Your task to perform on an android device: Search for Italian restaurants on Maps Image 0: 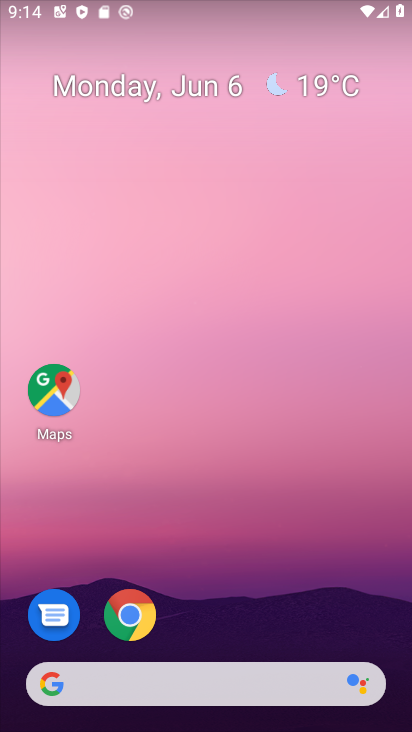
Step 0: click (68, 407)
Your task to perform on an android device: Search for Italian restaurants on Maps Image 1: 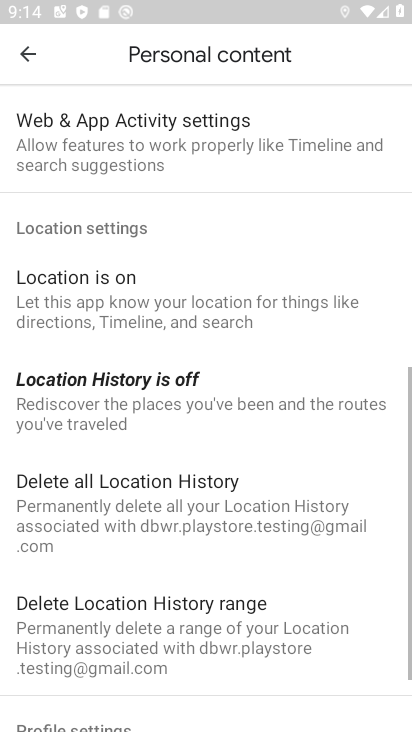
Step 1: press back button
Your task to perform on an android device: Search for Italian restaurants on Maps Image 2: 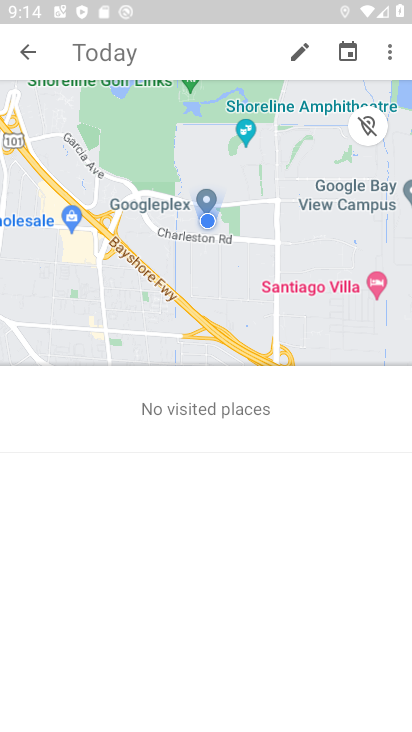
Step 2: click (21, 46)
Your task to perform on an android device: Search for Italian restaurants on Maps Image 3: 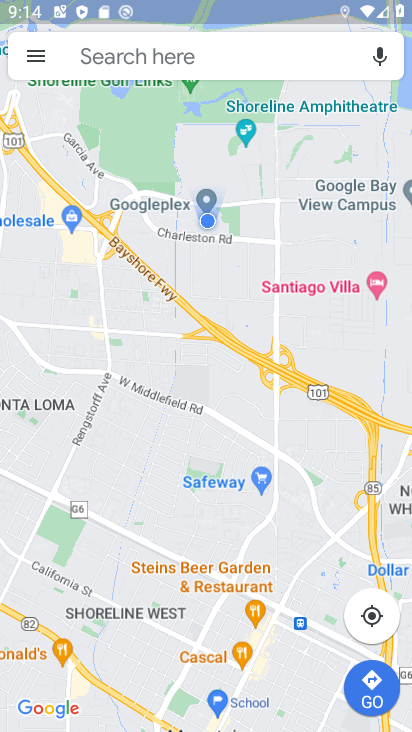
Step 3: click (108, 47)
Your task to perform on an android device: Search for Italian restaurants on Maps Image 4: 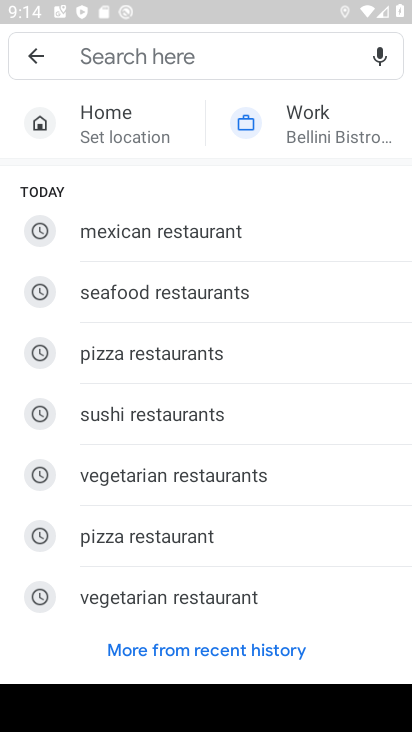
Step 4: click (126, 640)
Your task to perform on an android device: Search for Italian restaurants on Maps Image 5: 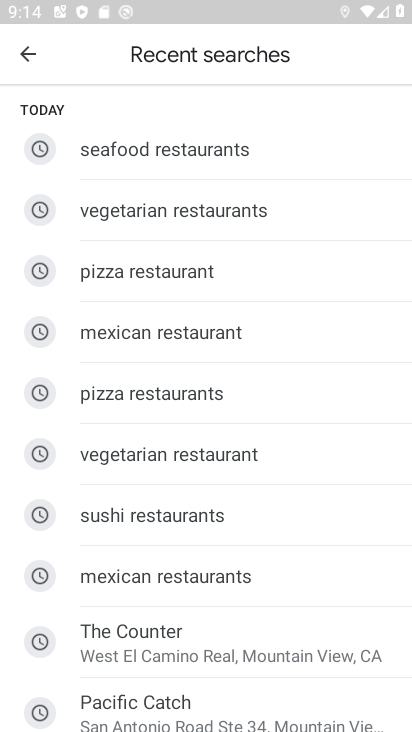
Step 5: click (33, 46)
Your task to perform on an android device: Search for Italian restaurants on Maps Image 6: 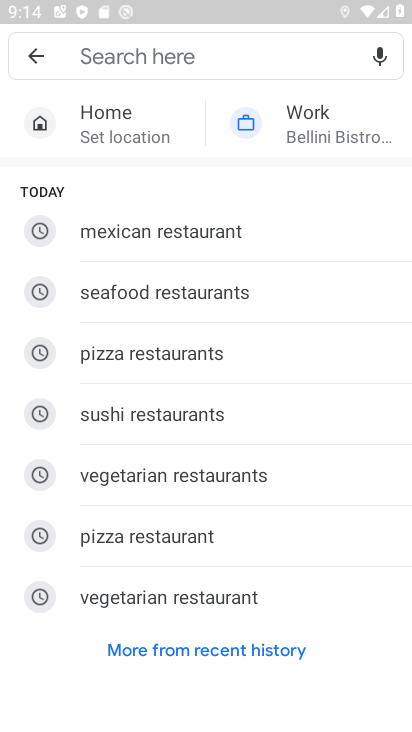
Step 6: click (179, 59)
Your task to perform on an android device: Search for Italian restaurants on Maps Image 7: 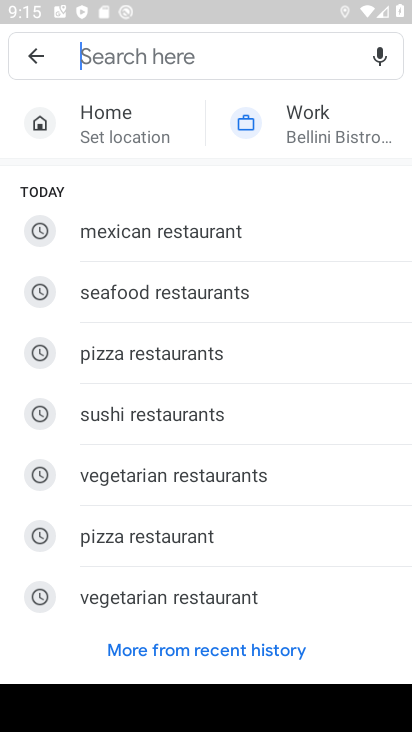
Step 7: type "italian restu"
Your task to perform on an android device: Search for Italian restaurants on Maps Image 8: 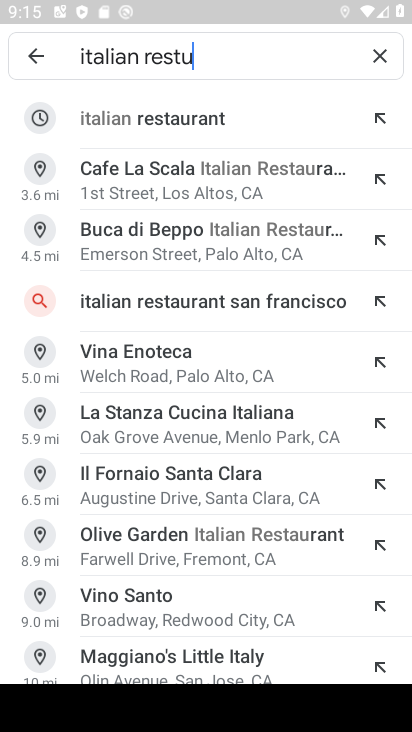
Step 8: click (156, 127)
Your task to perform on an android device: Search for Italian restaurants on Maps Image 9: 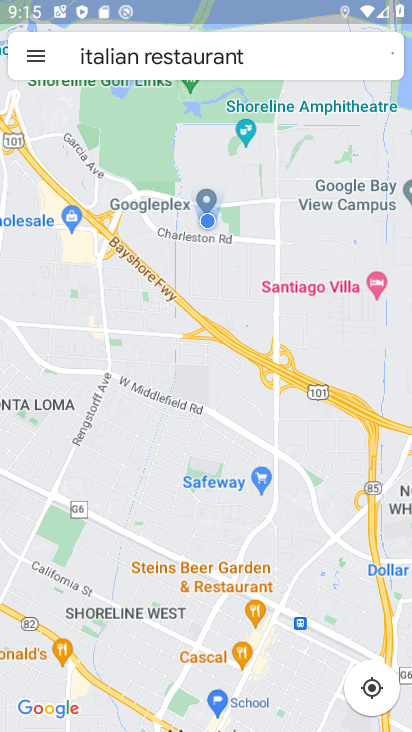
Step 9: task complete